Your task to perform on an android device: Go to Google Image 0: 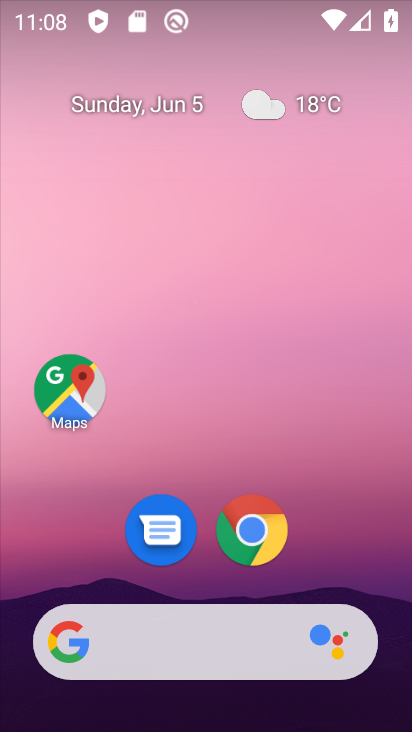
Step 0: drag from (316, 479) to (336, 25)
Your task to perform on an android device: Go to Google Image 1: 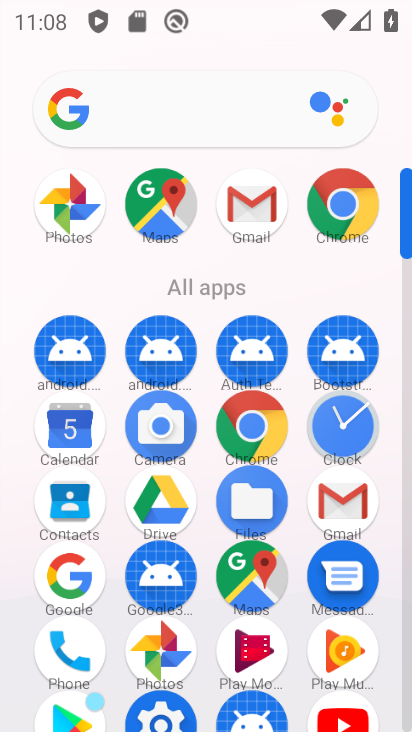
Step 1: click (70, 565)
Your task to perform on an android device: Go to Google Image 2: 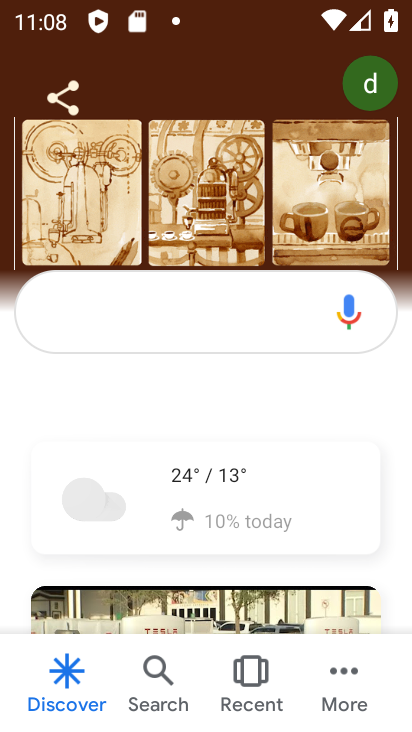
Step 2: task complete